Your task to perform on an android device: Do I have any events this weekend? Image 0: 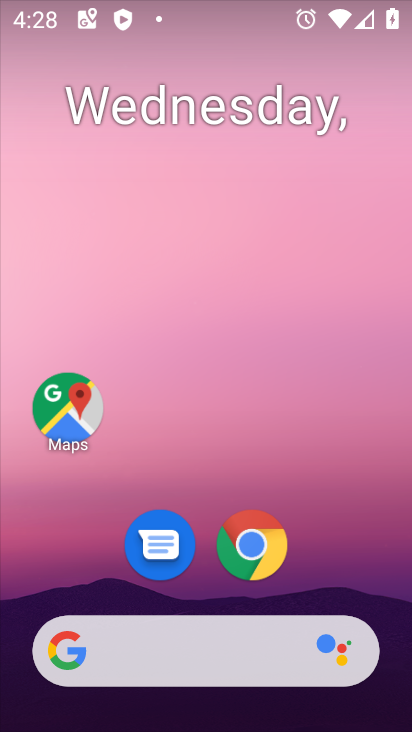
Step 0: drag from (379, 584) to (342, 240)
Your task to perform on an android device: Do I have any events this weekend? Image 1: 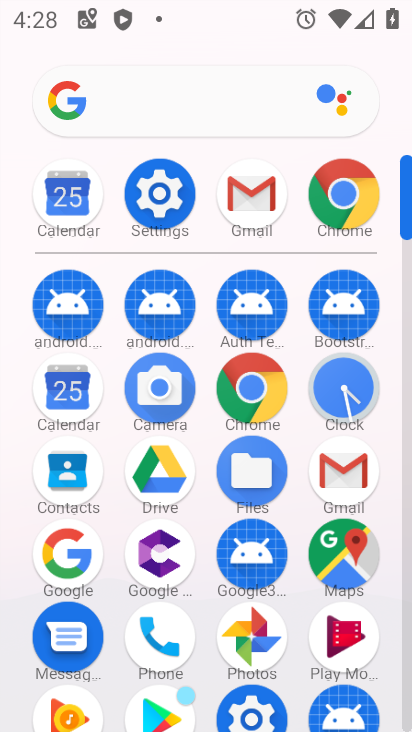
Step 1: click (90, 399)
Your task to perform on an android device: Do I have any events this weekend? Image 2: 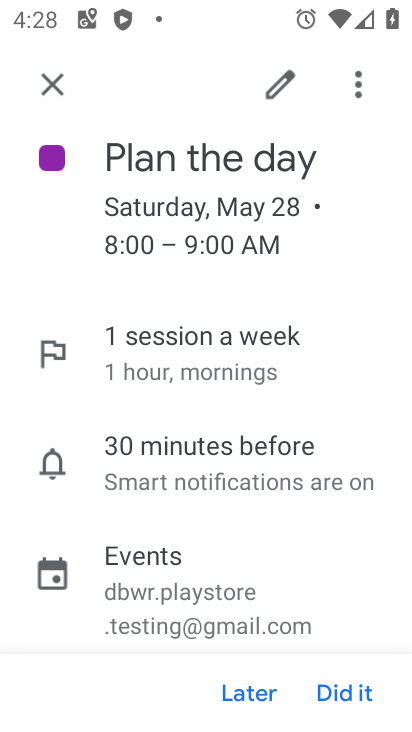
Step 2: click (54, 83)
Your task to perform on an android device: Do I have any events this weekend? Image 3: 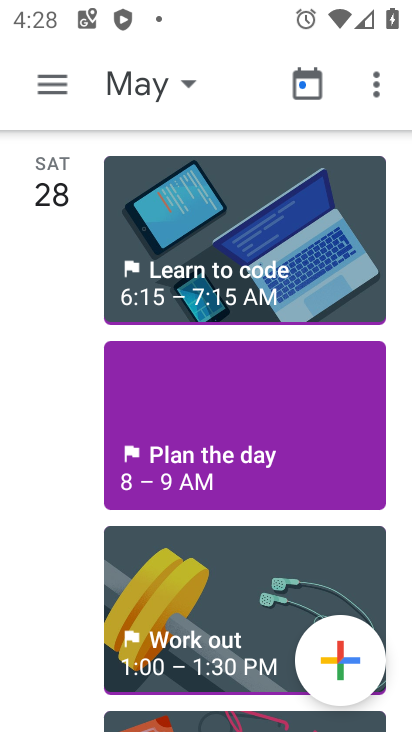
Step 3: click (197, 75)
Your task to perform on an android device: Do I have any events this weekend? Image 4: 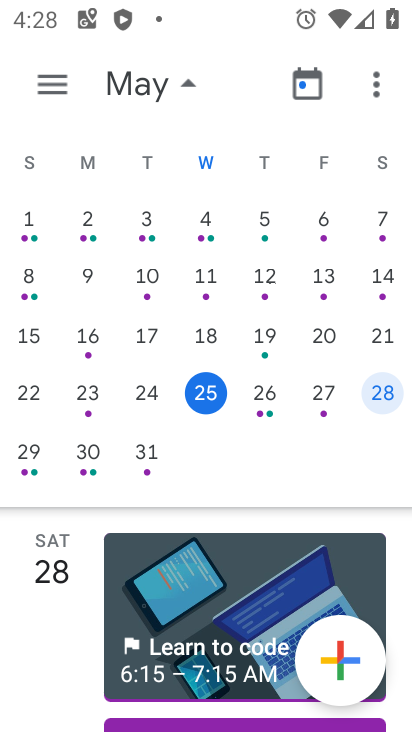
Step 4: click (25, 456)
Your task to perform on an android device: Do I have any events this weekend? Image 5: 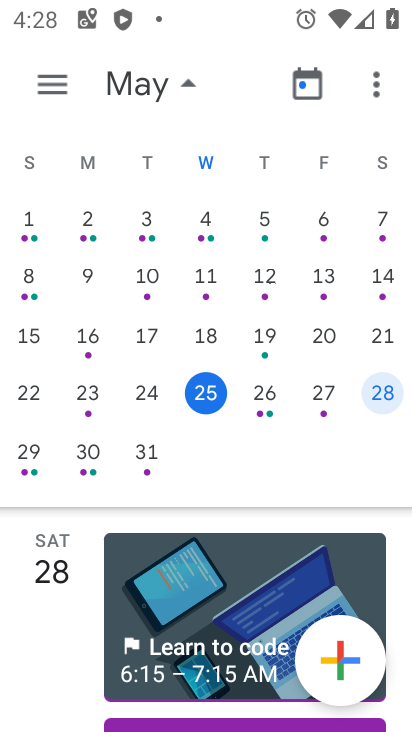
Step 5: click (25, 456)
Your task to perform on an android device: Do I have any events this weekend? Image 6: 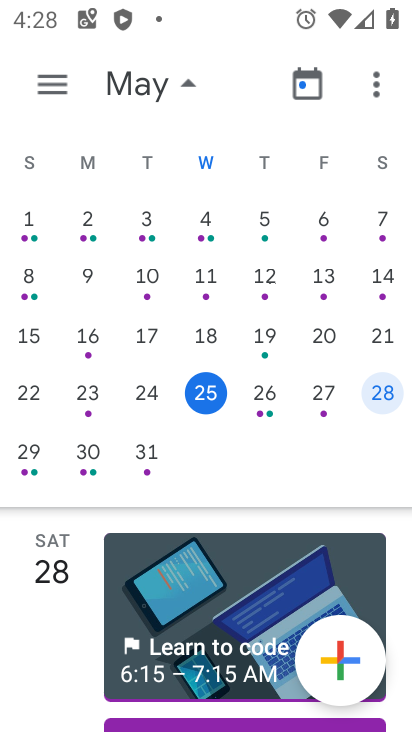
Step 6: task complete